Your task to perform on an android device: allow cookies in the chrome app Image 0: 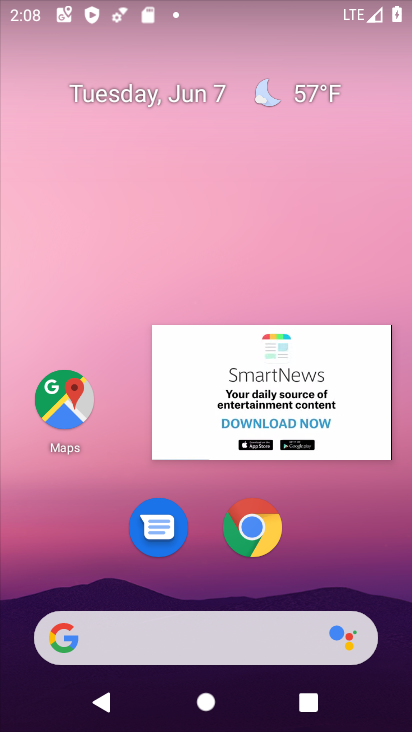
Step 0: click (362, 354)
Your task to perform on an android device: allow cookies in the chrome app Image 1: 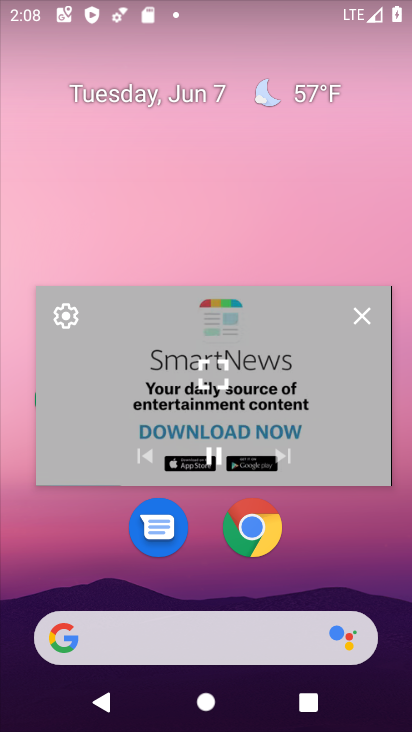
Step 1: click (362, 315)
Your task to perform on an android device: allow cookies in the chrome app Image 2: 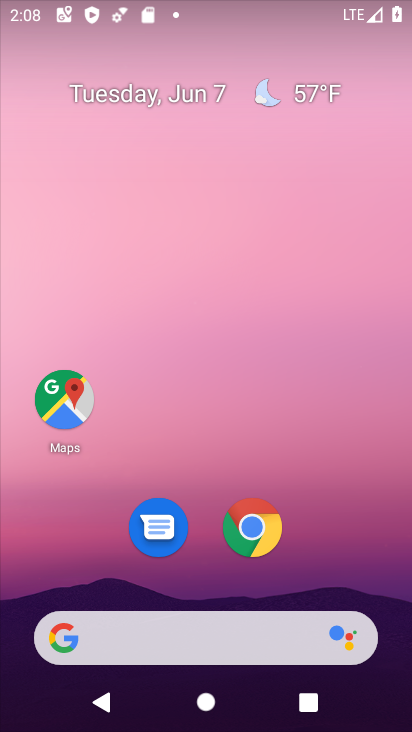
Step 2: click (257, 530)
Your task to perform on an android device: allow cookies in the chrome app Image 3: 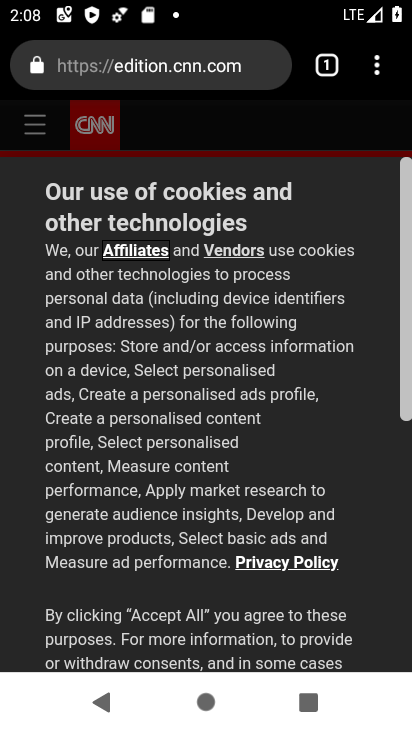
Step 3: click (386, 62)
Your task to perform on an android device: allow cookies in the chrome app Image 4: 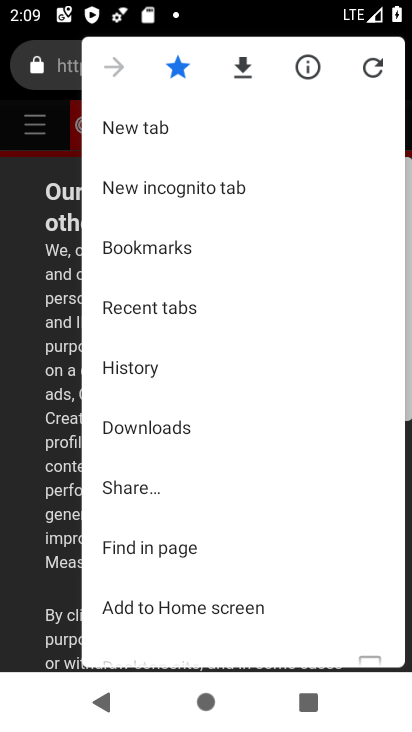
Step 4: drag from (222, 629) to (213, 251)
Your task to perform on an android device: allow cookies in the chrome app Image 5: 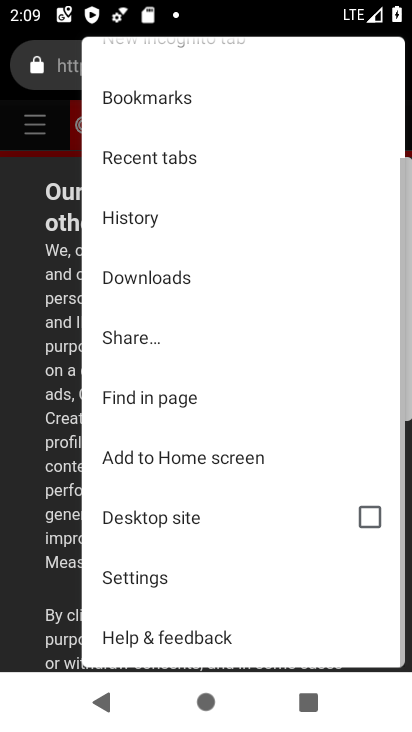
Step 5: click (167, 577)
Your task to perform on an android device: allow cookies in the chrome app Image 6: 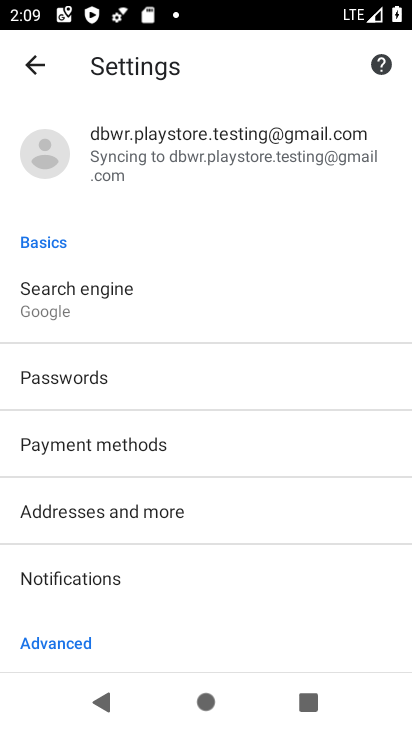
Step 6: drag from (183, 448) to (181, 190)
Your task to perform on an android device: allow cookies in the chrome app Image 7: 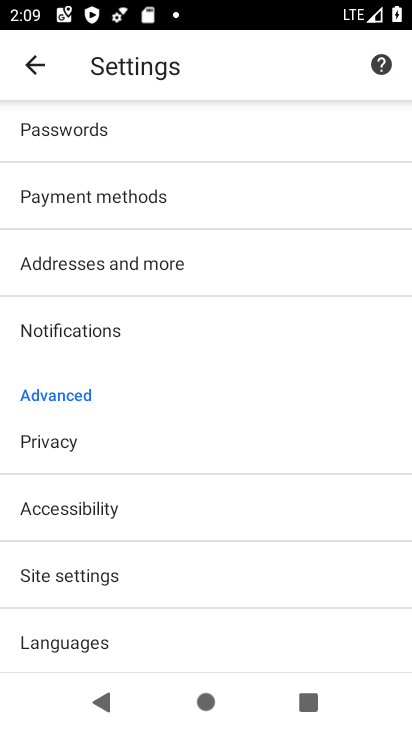
Step 7: click (175, 585)
Your task to perform on an android device: allow cookies in the chrome app Image 8: 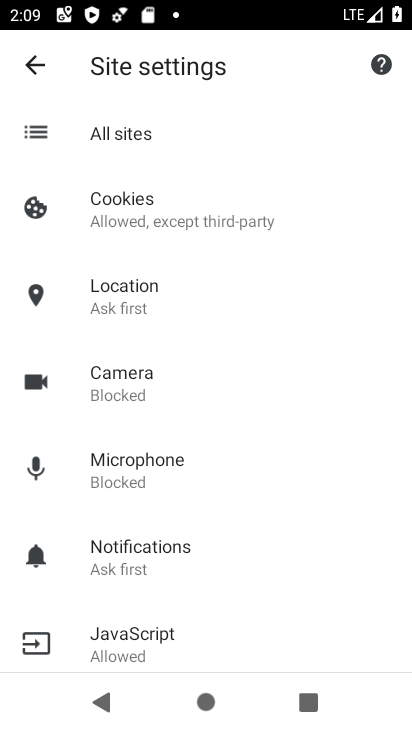
Step 8: click (203, 220)
Your task to perform on an android device: allow cookies in the chrome app Image 9: 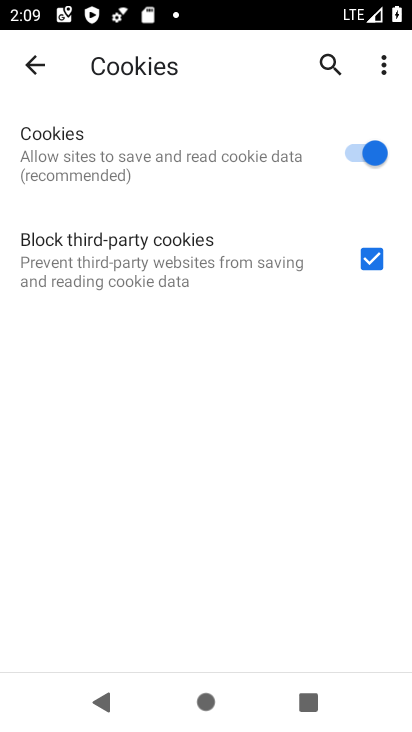
Step 9: task complete